Your task to perform on an android device: turn off priority inbox in the gmail app Image 0: 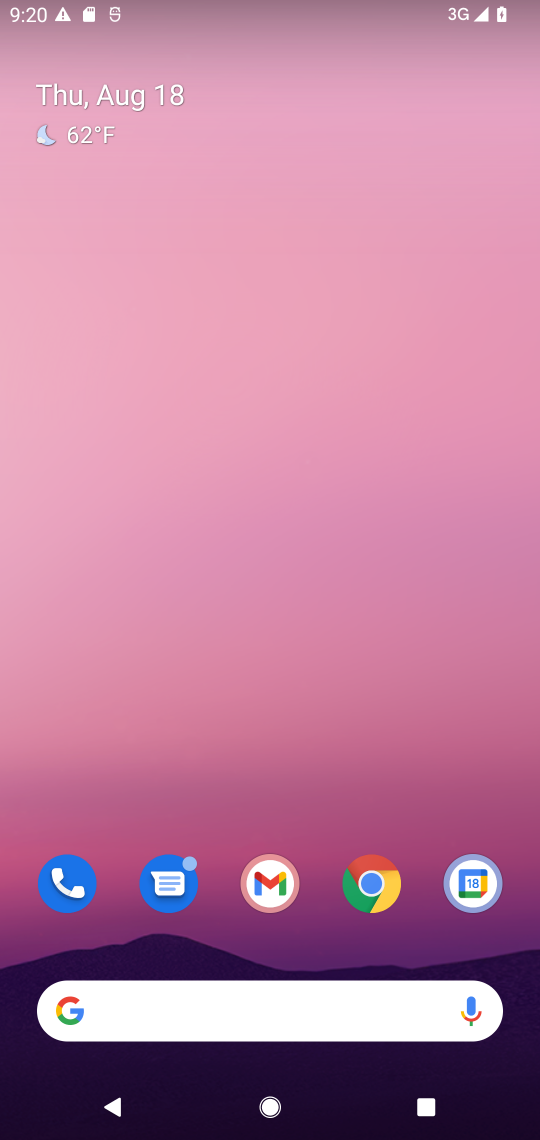
Step 0: click (239, 888)
Your task to perform on an android device: turn off priority inbox in the gmail app Image 1: 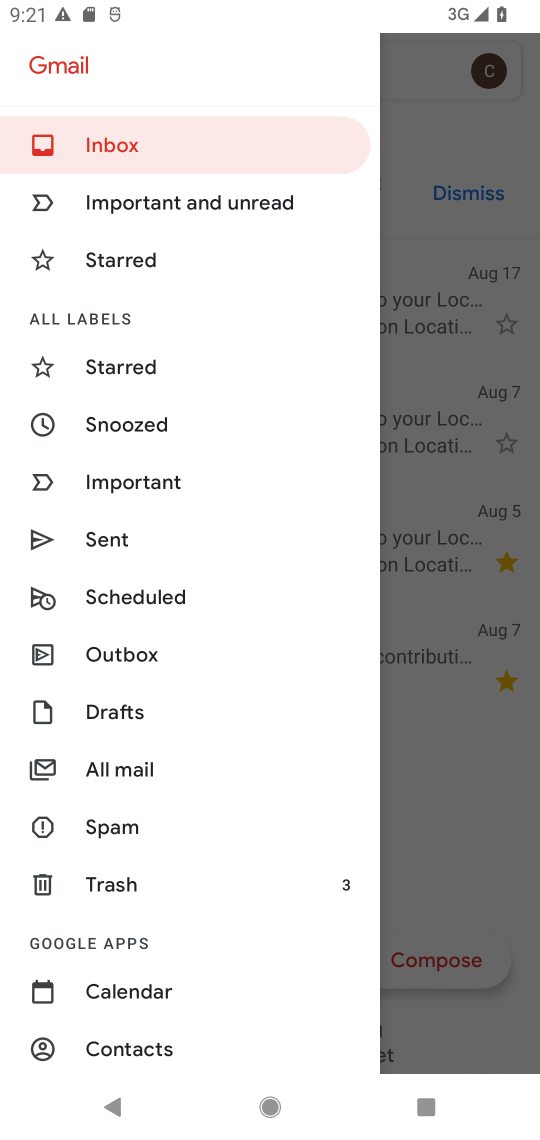
Step 1: drag from (286, 995) to (148, 376)
Your task to perform on an android device: turn off priority inbox in the gmail app Image 2: 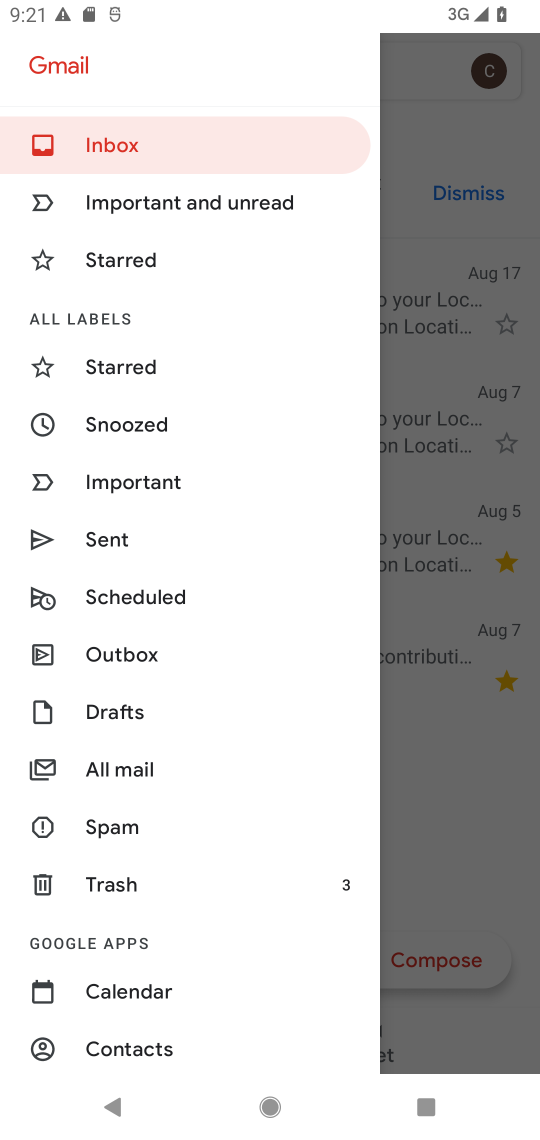
Step 2: drag from (256, 1001) to (276, 344)
Your task to perform on an android device: turn off priority inbox in the gmail app Image 3: 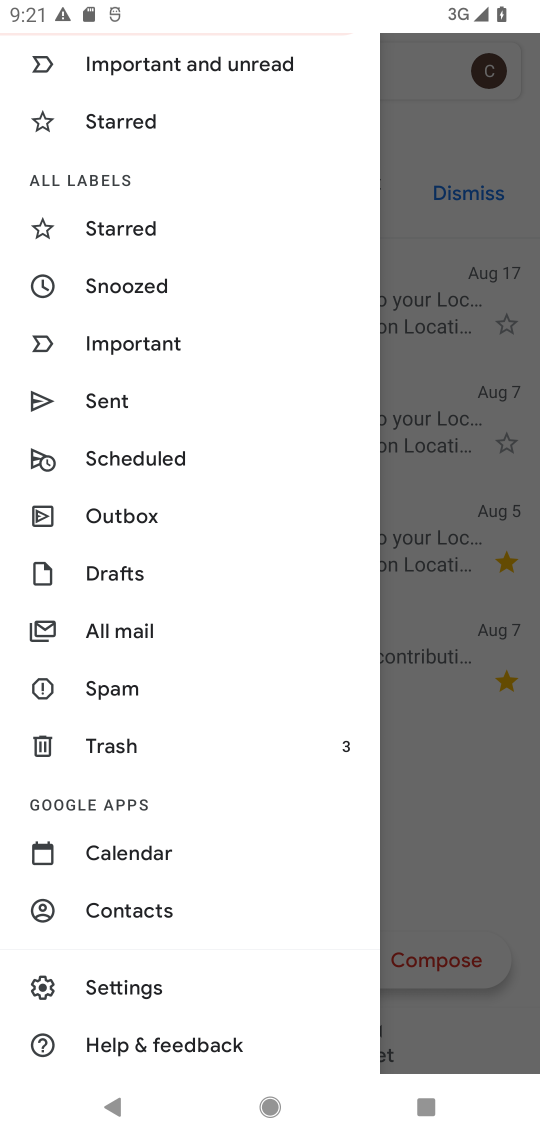
Step 3: click (117, 1001)
Your task to perform on an android device: turn off priority inbox in the gmail app Image 4: 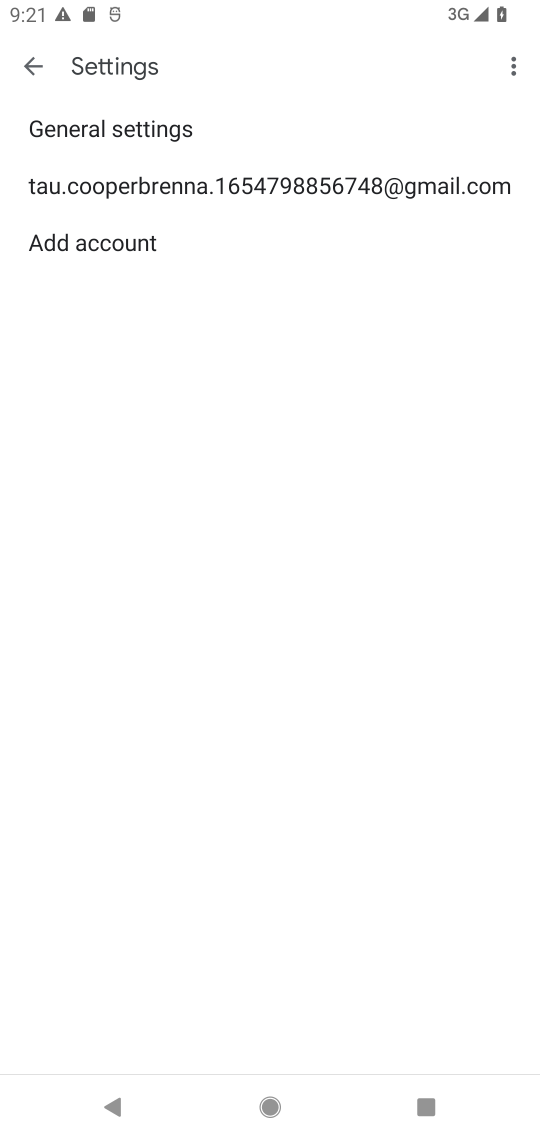
Step 4: click (160, 183)
Your task to perform on an android device: turn off priority inbox in the gmail app Image 5: 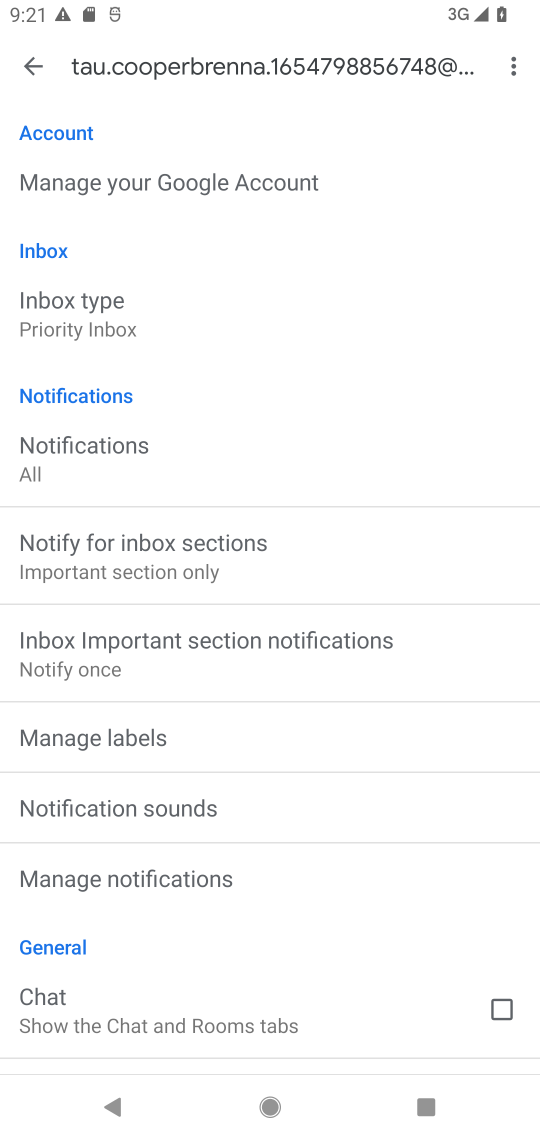
Step 5: task complete